Your task to perform on an android device: turn off javascript in the chrome app Image 0: 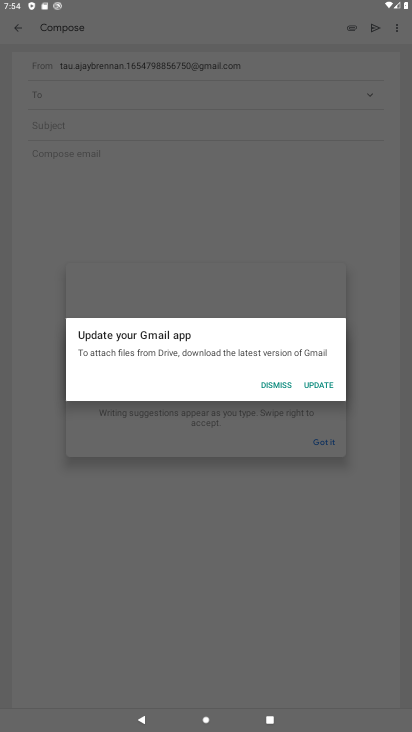
Step 0: press home button
Your task to perform on an android device: turn off javascript in the chrome app Image 1: 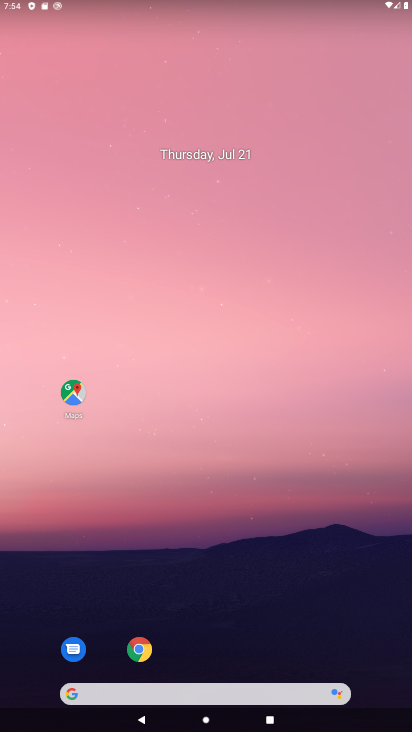
Step 1: click (130, 641)
Your task to perform on an android device: turn off javascript in the chrome app Image 2: 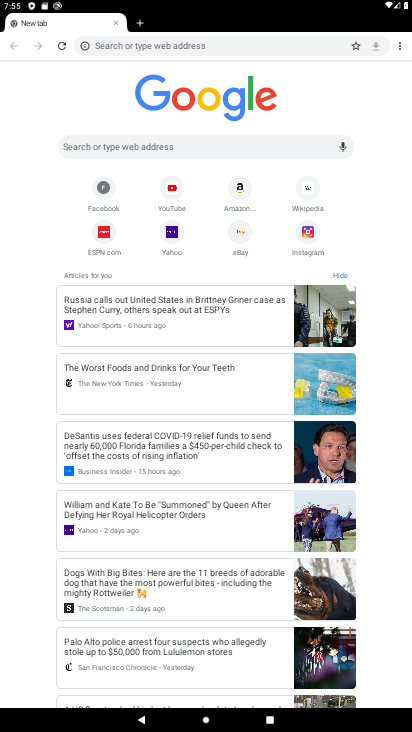
Step 2: click (394, 50)
Your task to perform on an android device: turn off javascript in the chrome app Image 3: 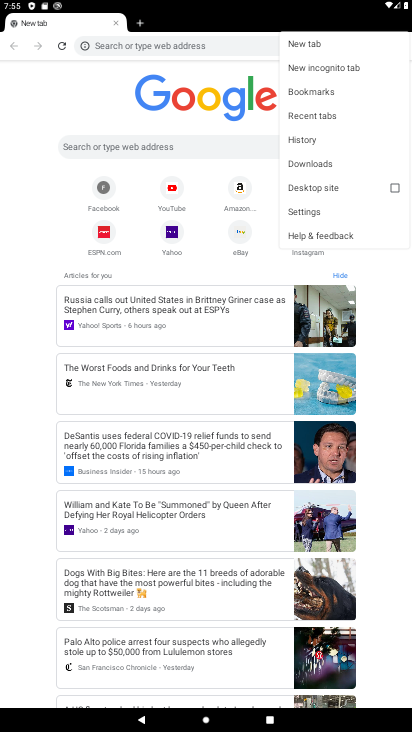
Step 3: click (309, 214)
Your task to perform on an android device: turn off javascript in the chrome app Image 4: 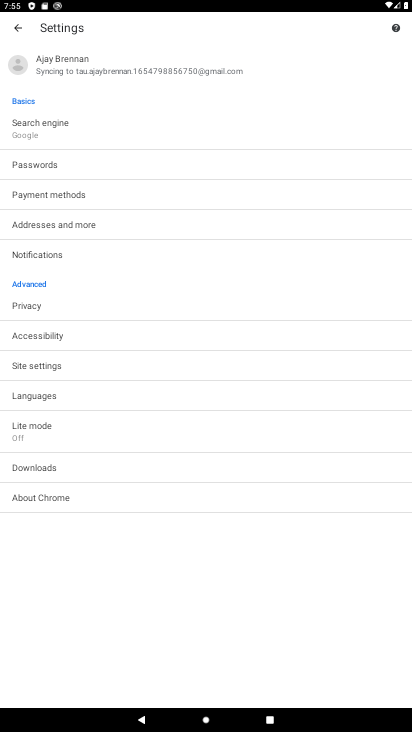
Step 4: click (50, 360)
Your task to perform on an android device: turn off javascript in the chrome app Image 5: 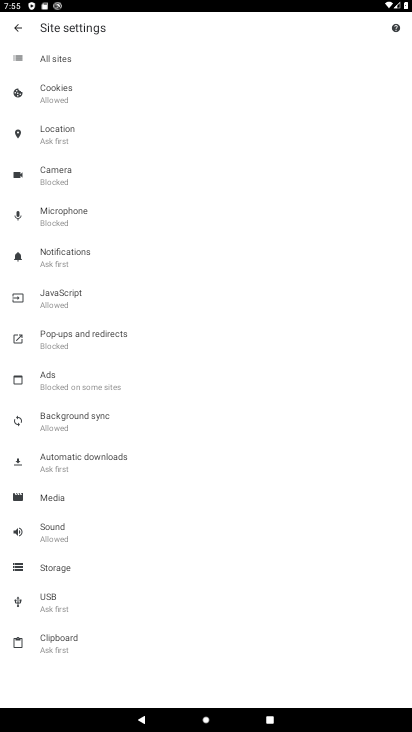
Step 5: click (64, 303)
Your task to perform on an android device: turn off javascript in the chrome app Image 6: 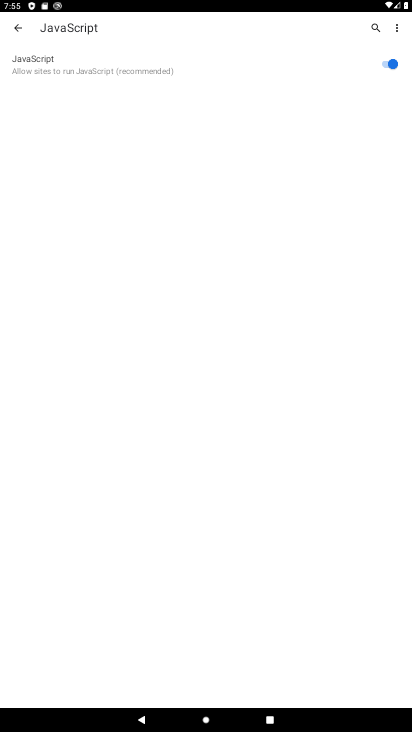
Step 6: click (353, 68)
Your task to perform on an android device: turn off javascript in the chrome app Image 7: 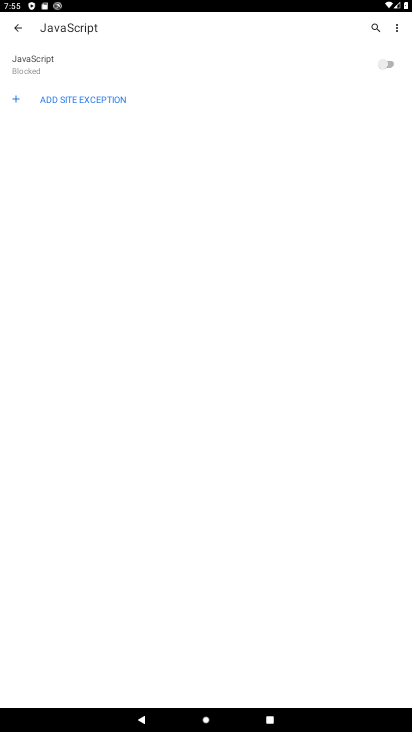
Step 7: task complete